Your task to perform on an android device: all mails in gmail Image 0: 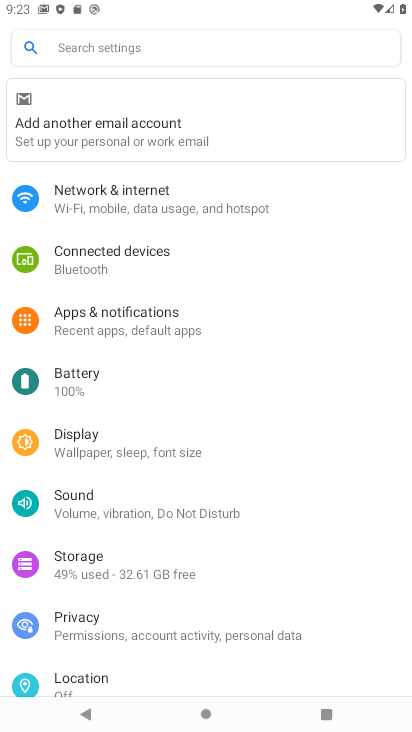
Step 0: press home button
Your task to perform on an android device: all mails in gmail Image 1: 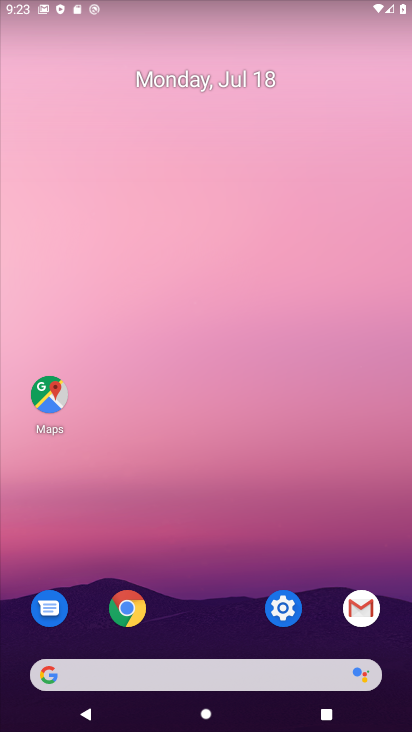
Step 1: click (356, 603)
Your task to perform on an android device: all mails in gmail Image 2: 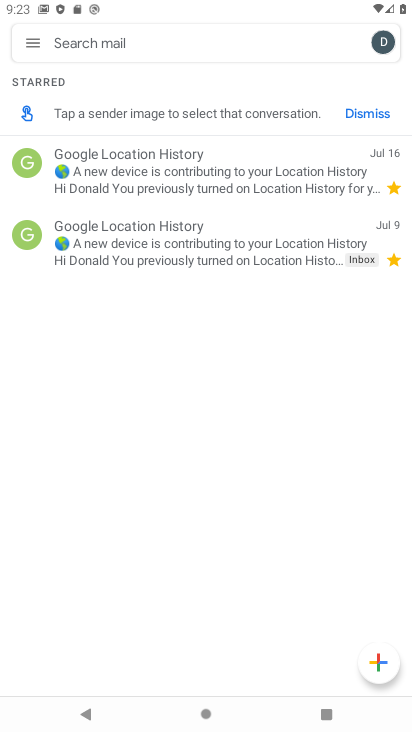
Step 2: click (28, 56)
Your task to perform on an android device: all mails in gmail Image 3: 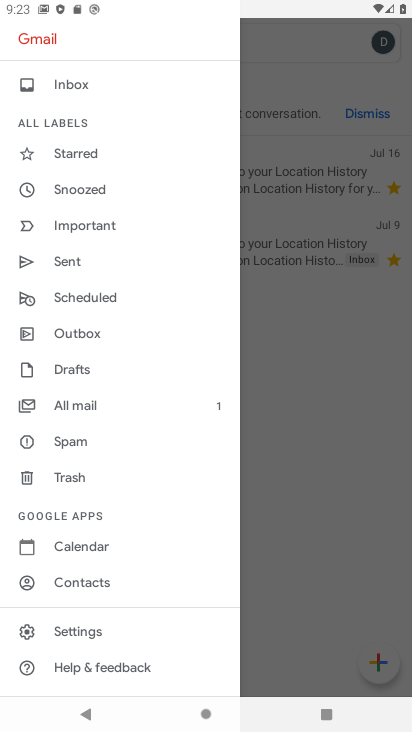
Step 3: click (83, 411)
Your task to perform on an android device: all mails in gmail Image 4: 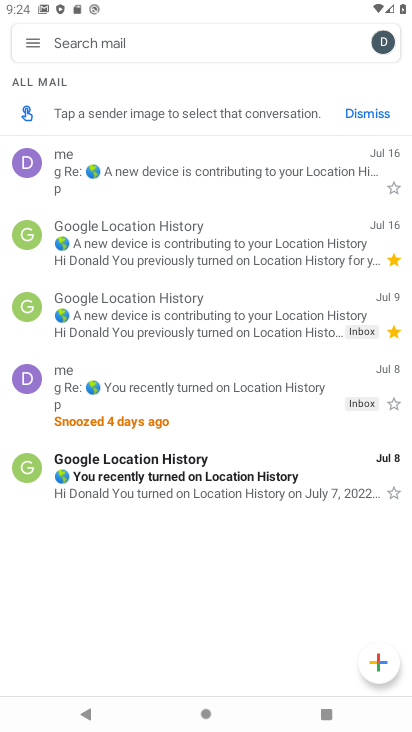
Step 4: task complete